Your task to perform on an android device: Toggle the flashlight Image 0: 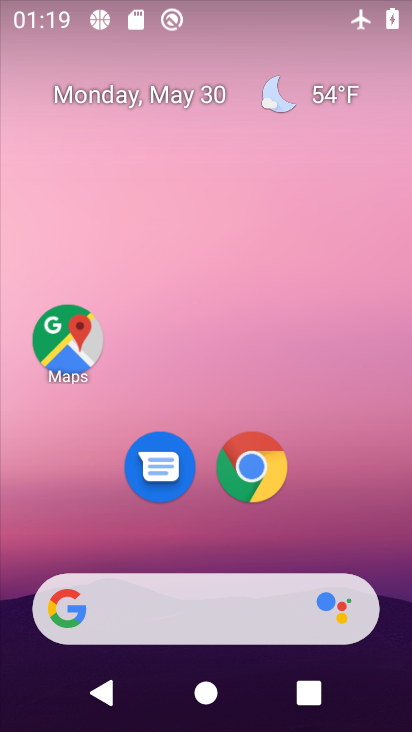
Step 0: drag from (226, 544) to (158, 71)
Your task to perform on an android device: Toggle the flashlight Image 1: 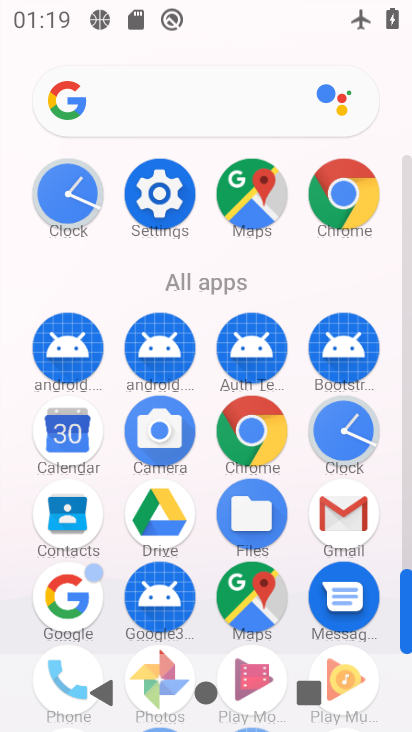
Step 1: click (181, 202)
Your task to perform on an android device: Toggle the flashlight Image 2: 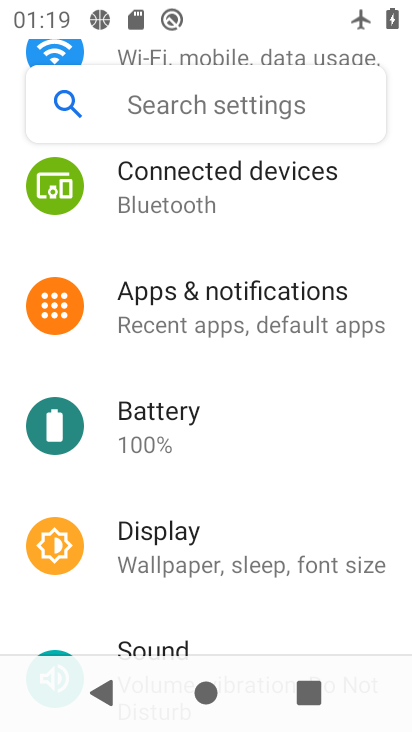
Step 2: task complete